Your task to perform on an android device: When is my next appointment? Image 0: 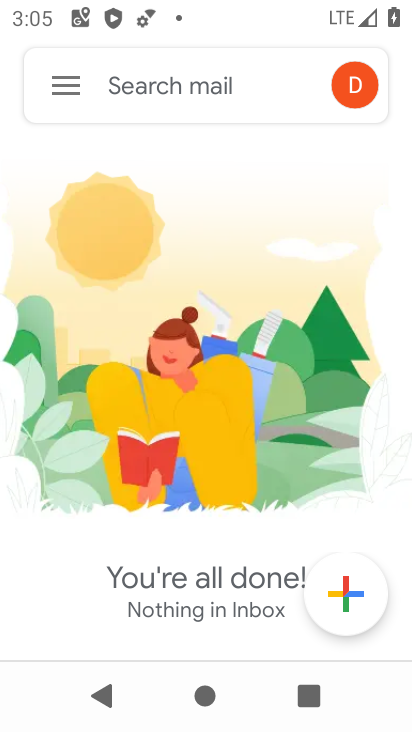
Step 0: press home button
Your task to perform on an android device: When is my next appointment? Image 1: 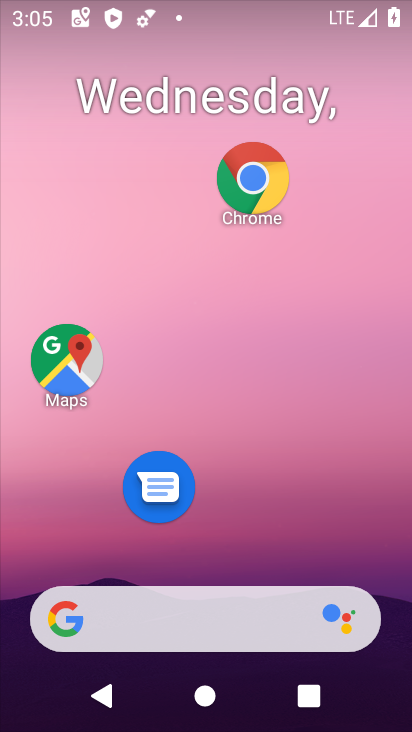
Step 1: drag from (278, 530) to (304, 117)
Your task to perform on an android device: When is my next appointment? Image 2: 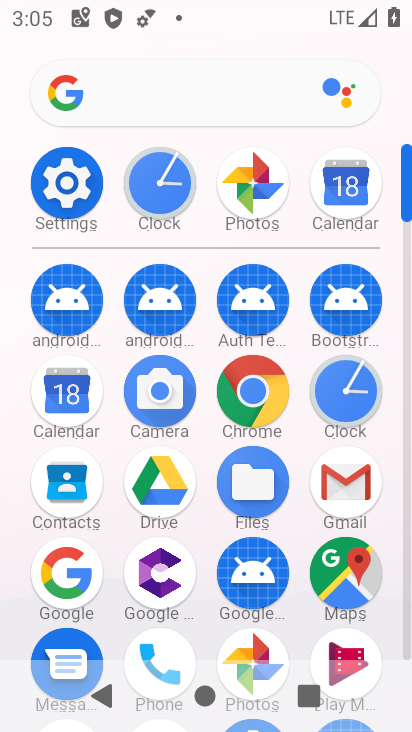
Step 2: click (78, 402)
Your task to perform on an android device: When is my next appointment? Image 3: 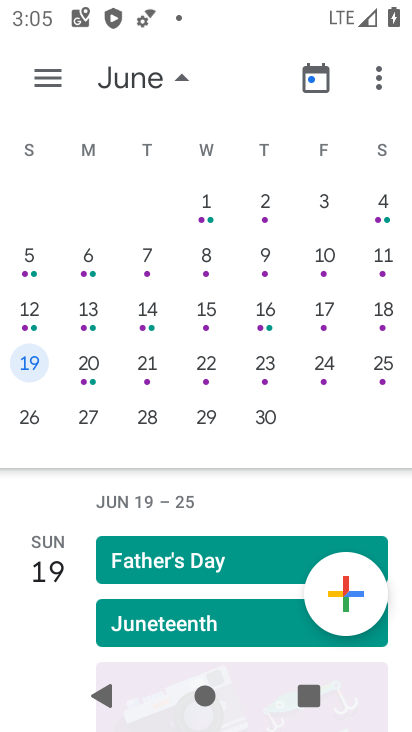
Step 3: drag from (76, 294) to (400, 266)
Your task to perform on an android device: When is my next appointment? Image 4: 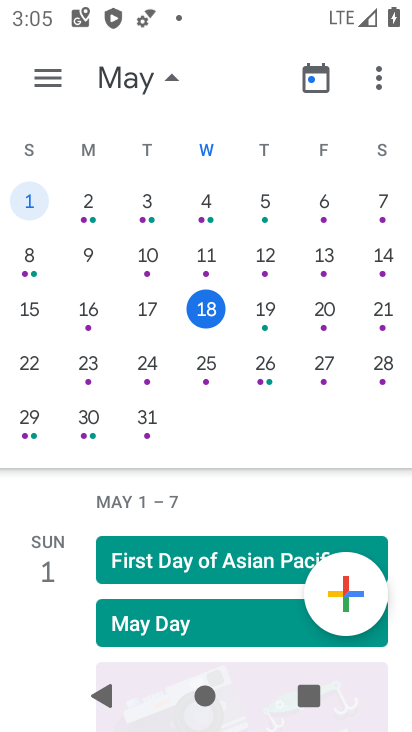
Step 4: click (194, 308)
Your task to perform on an android device: When is my next appointment? Image 5: 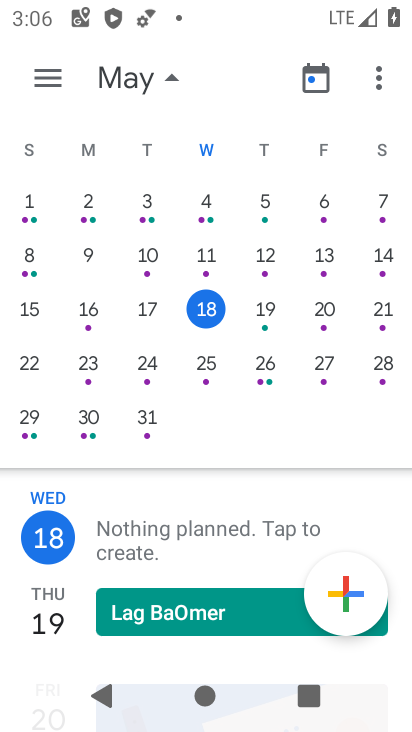
Step 5: task complete